Your task to perform on an android device: Go to notification settings Image 0: 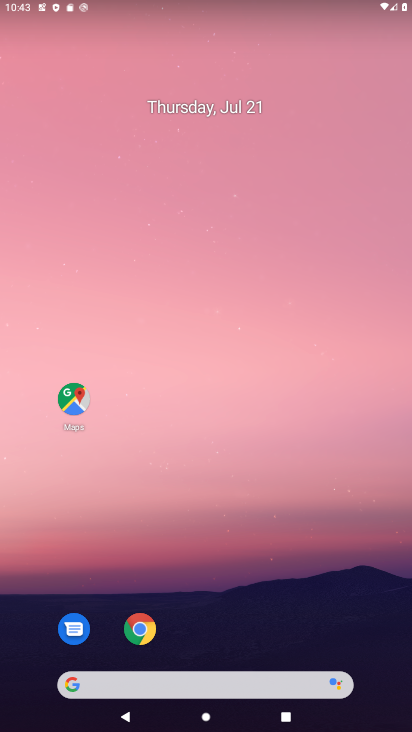
Step 0: drag from (279, 548) to (269, 204)
Your task to perform on an android device: Go to notification settings Image 1: 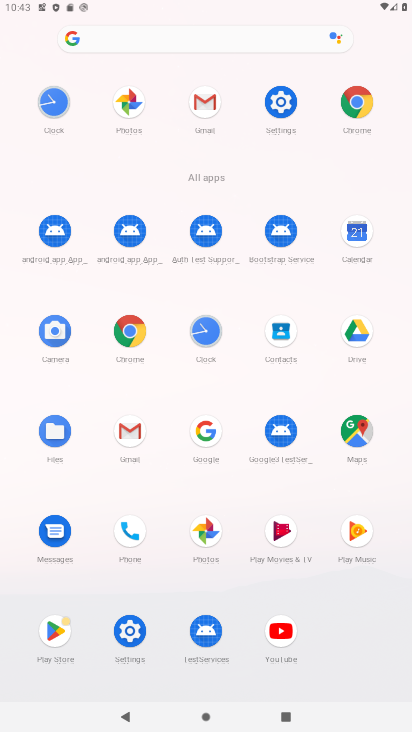
Step 1: click (126, 639)
Your task to perform on an android device: Go to notification settings Image 2: 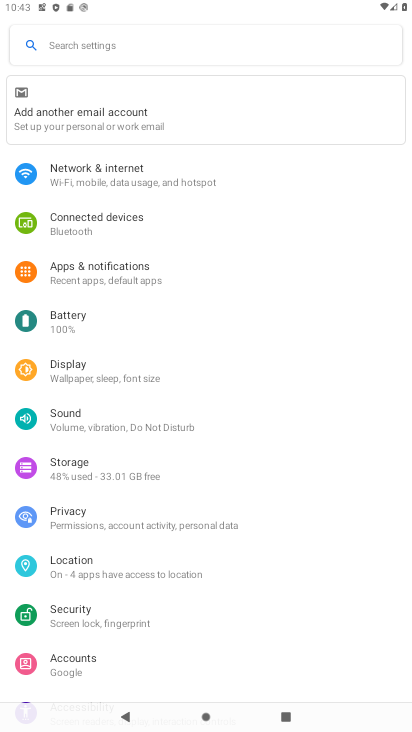
Step 2: click (88, 266)
Your task to perform on an android device: Go to notification settings Image 3: 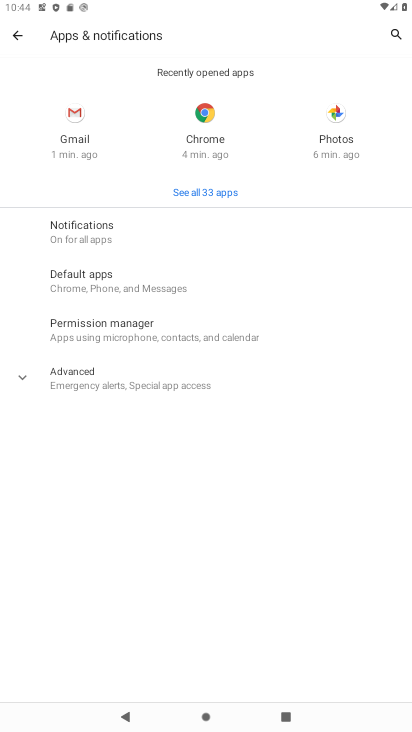
Step 3: task complete